Your task to perform on an android device: turn on notifications settings in the gmail app Image 0: 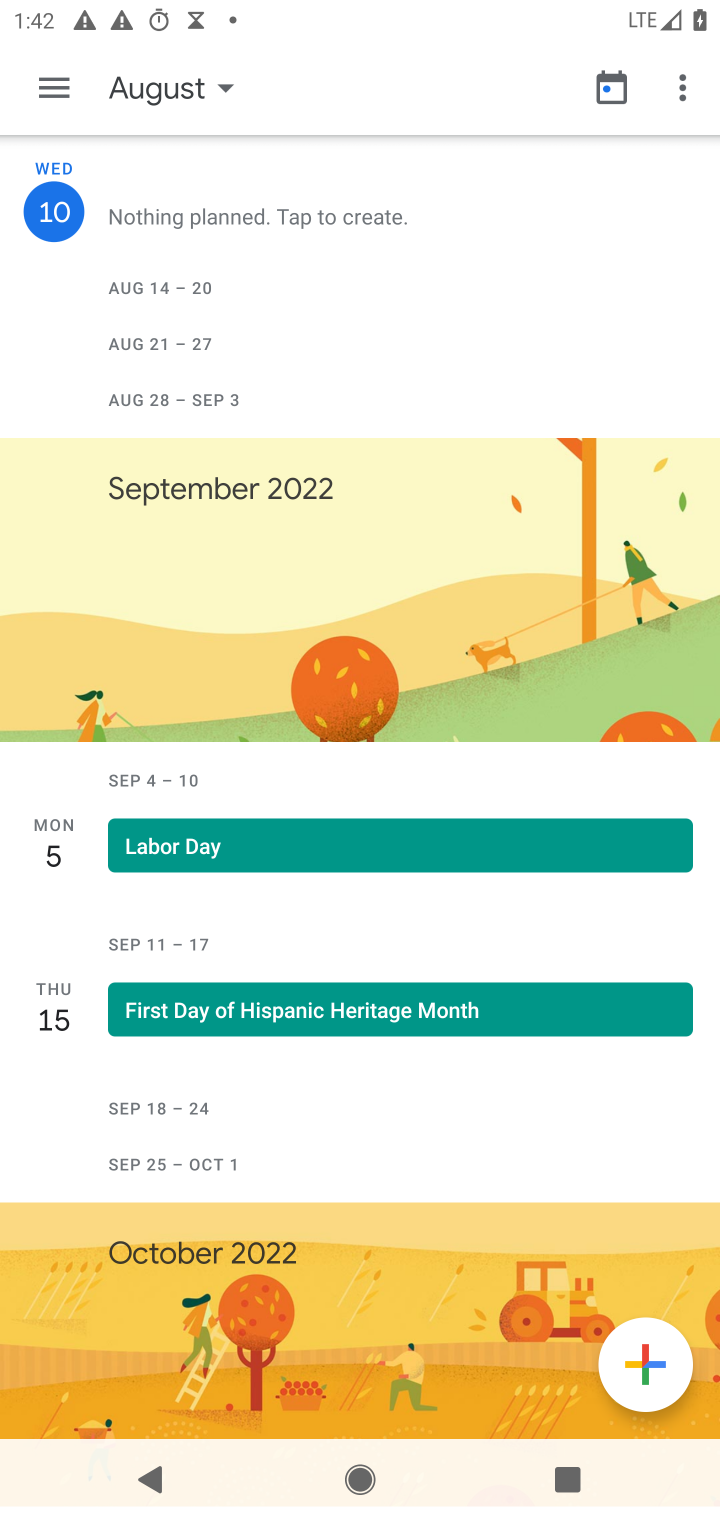
Step 0: press home button
Your task to perform on an android device: turn on notifications settings in the gmail app Image 1: 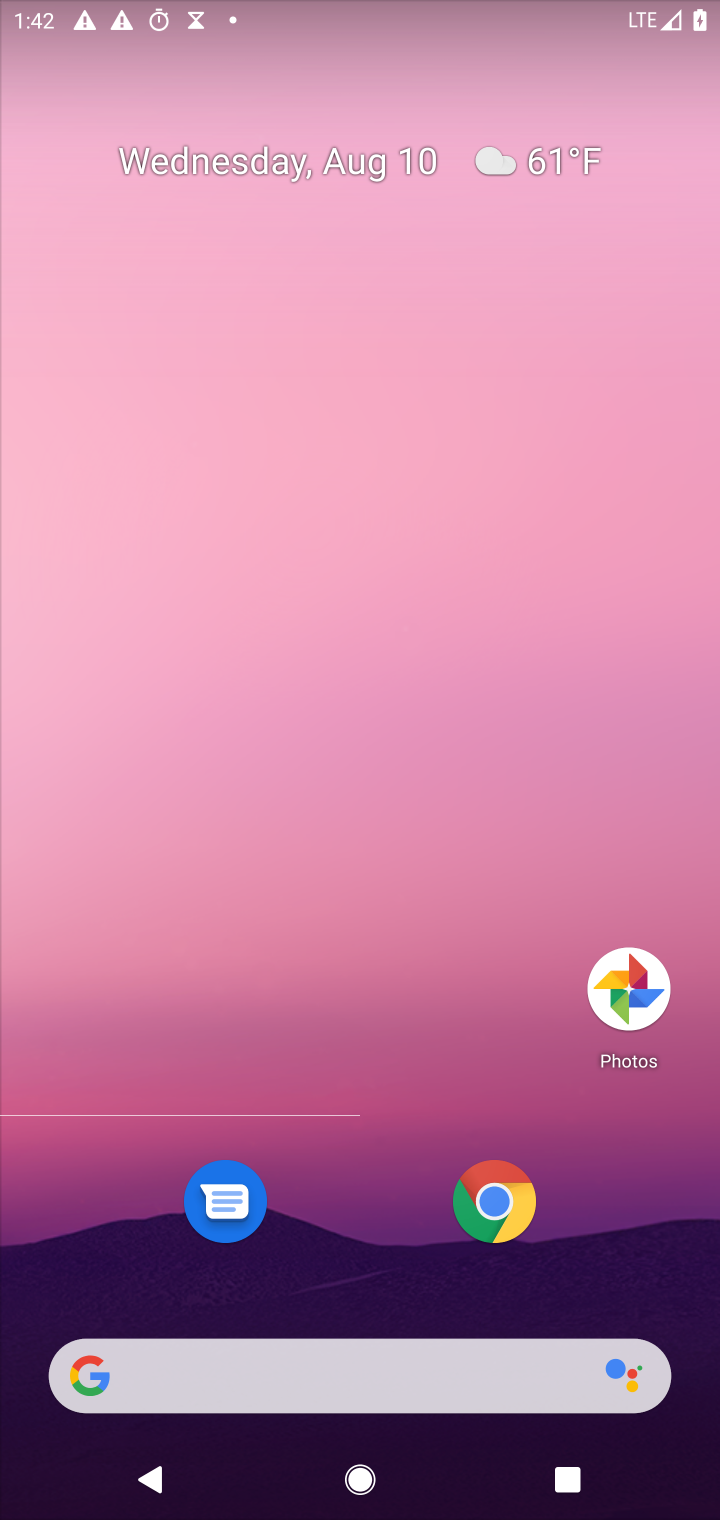
Step 1: drag from (407, 1295) to (461, 270)
Your task to perform on an android device: turn on notifications settings in the gmail app Image 2: 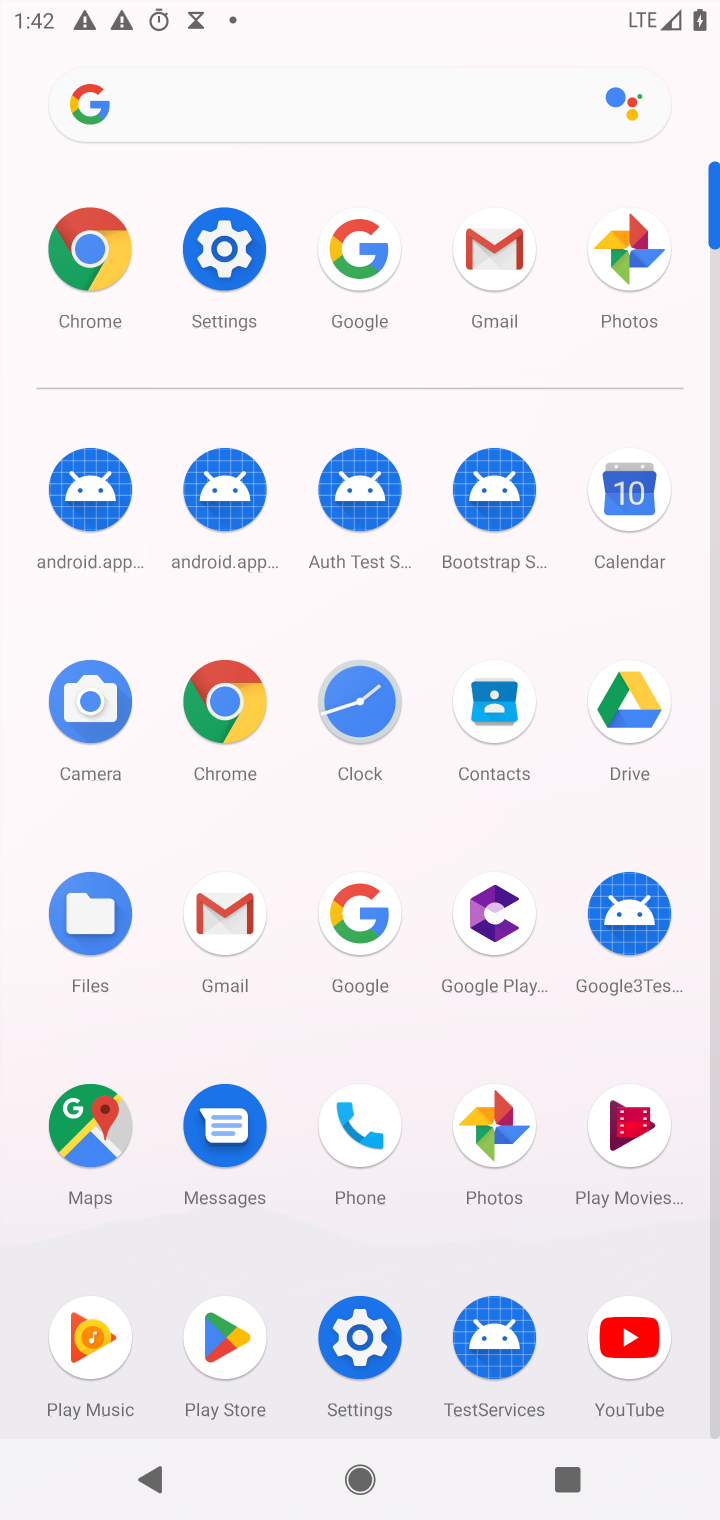
Step 2: click (489, 260)
Your task to perform on an android device: turn on notifications settings in the gmail app Image 3: 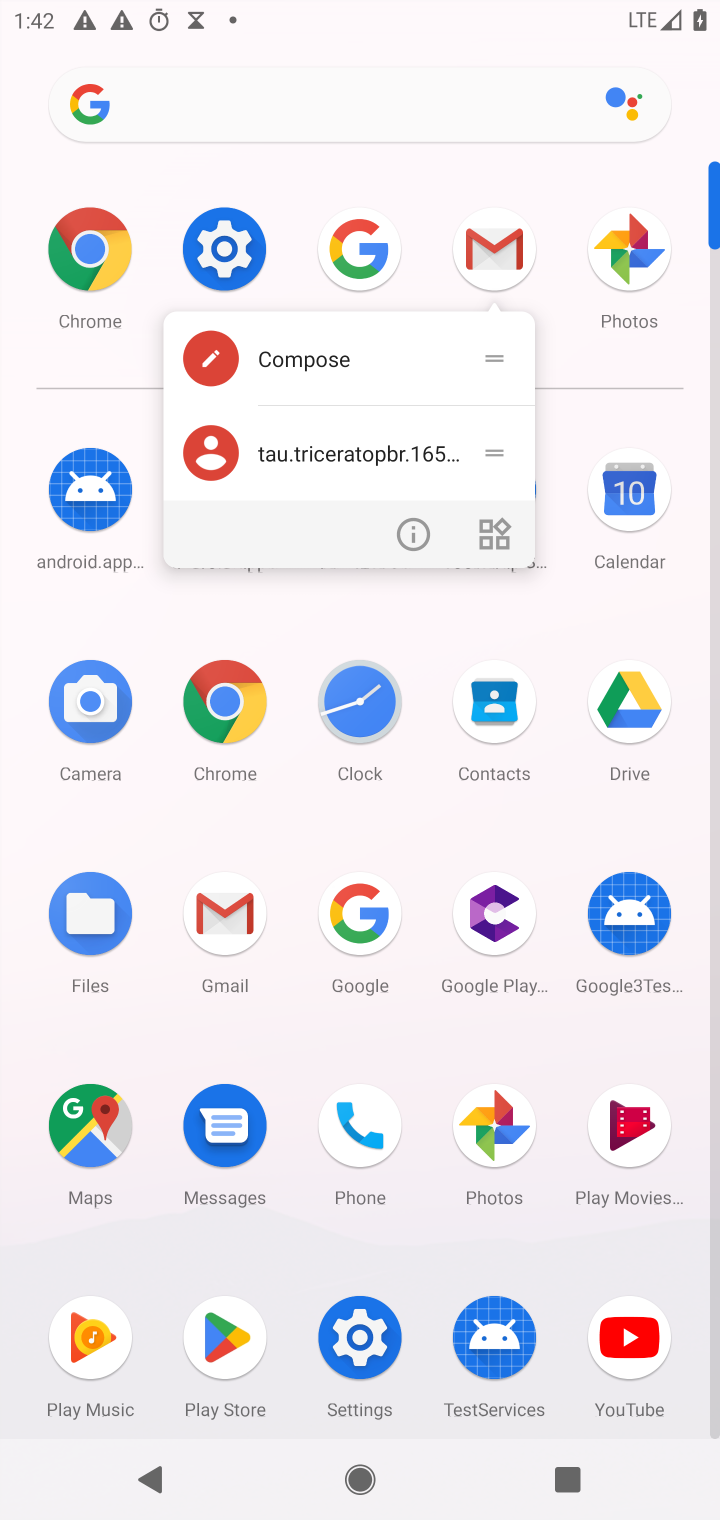
Step 3: click (489, 260)
Your task to perform on an android device: turn on notifications settings in the gmail app Image 4: 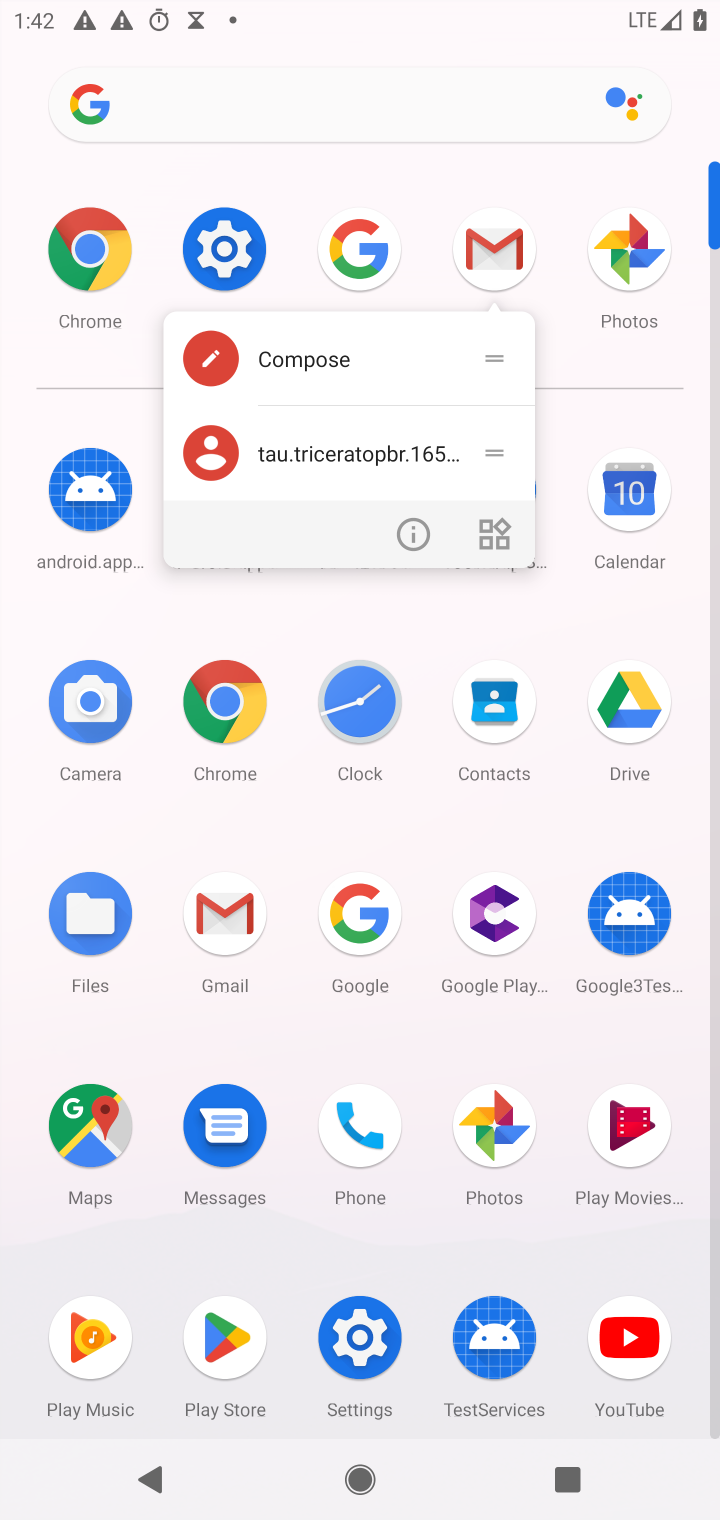
Step 4: click (489, 260)
Your task to perform on an android device: turn on notifications settings in the gmail app Image 5: 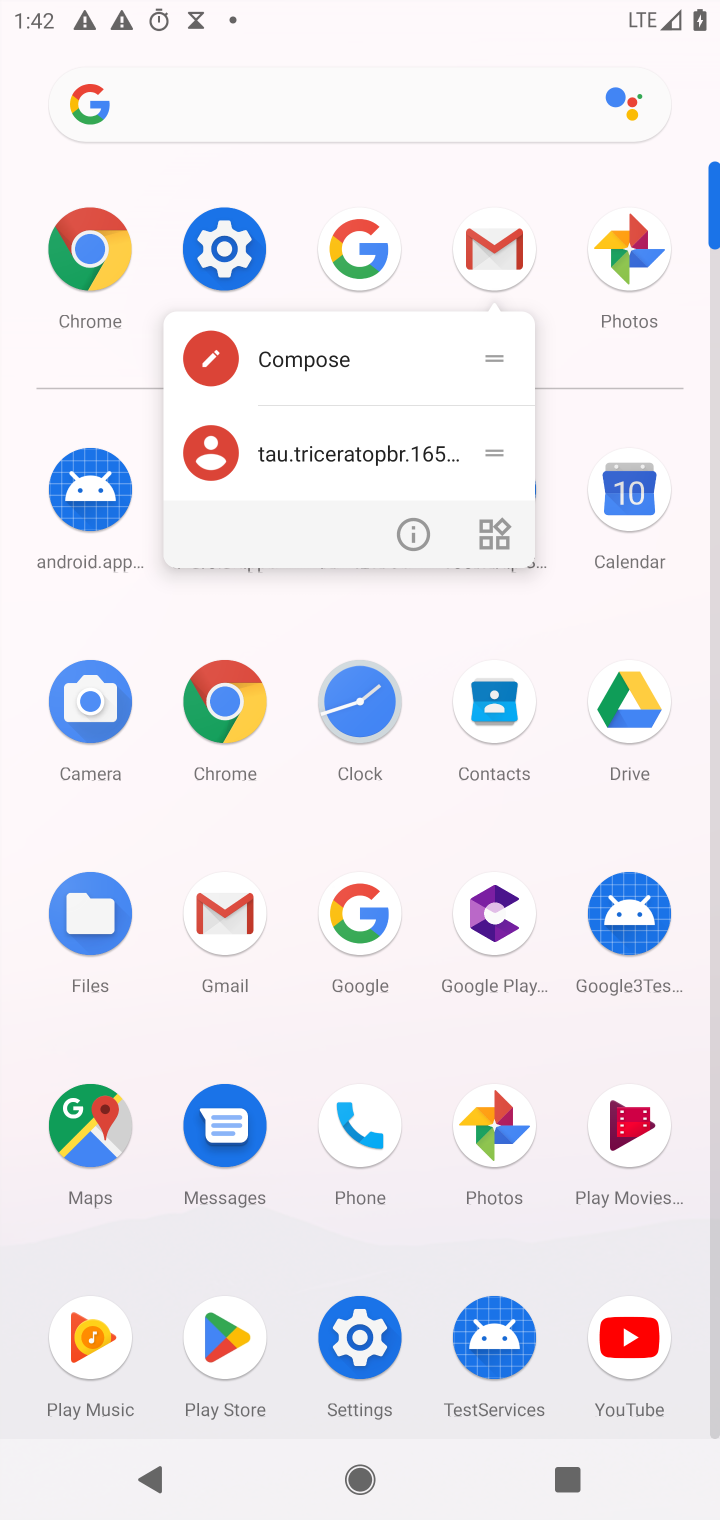
Step 5: click (489, 260)
Your task to perform on an android device: turn on notifications settings in the gmail app Image 6: 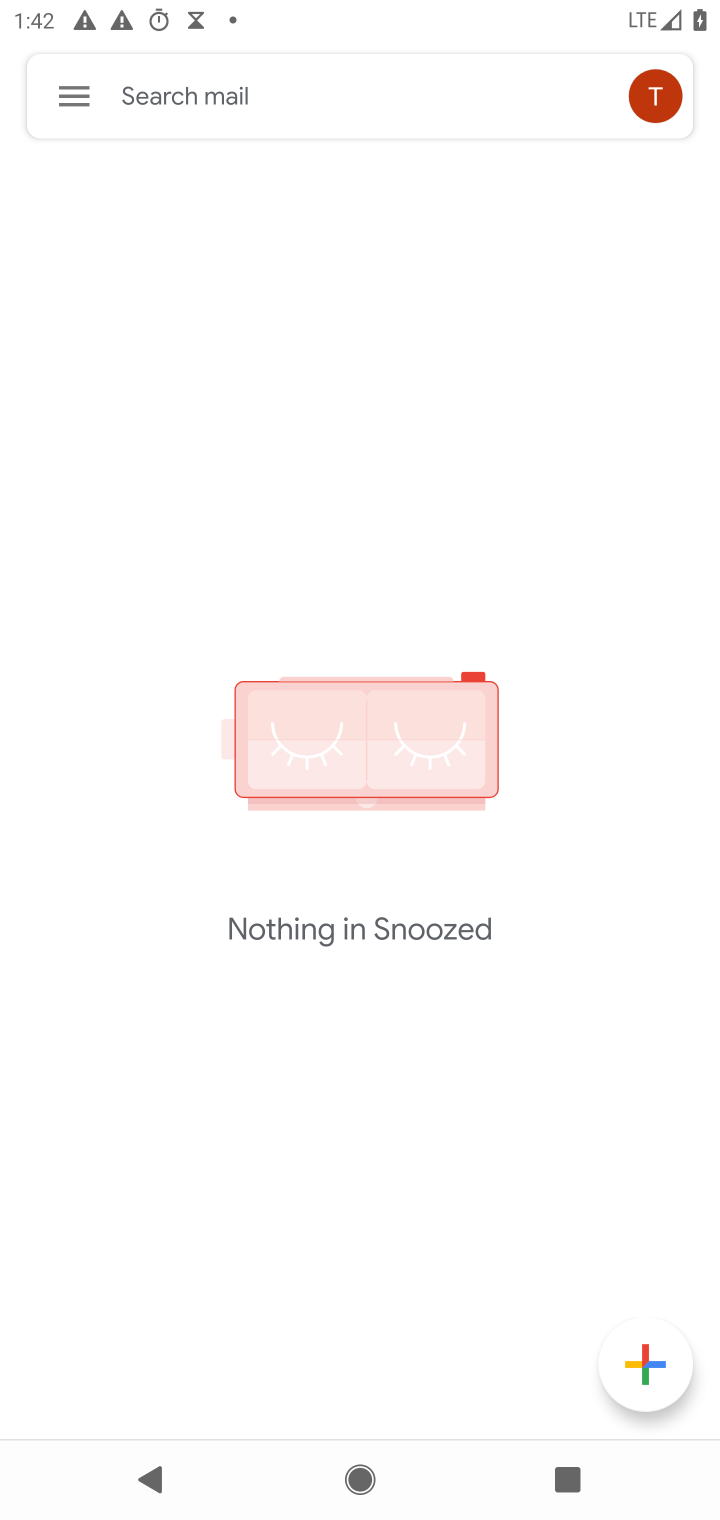
Step 6: click (80, 94)
Your task to perform on an android device: turn on notifications settings in the gmail app Image 7: 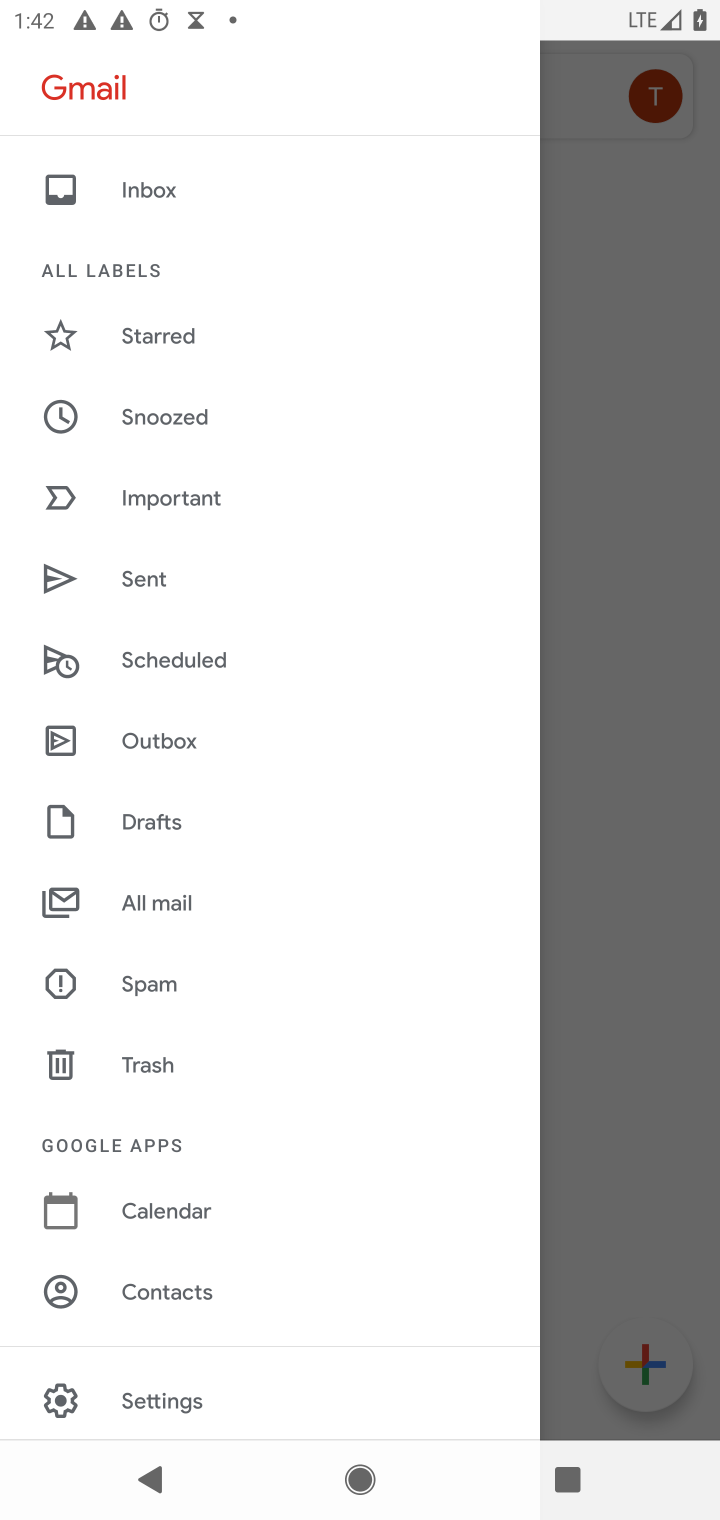
Step 7: click (169, 1389)
Your task to perform on an android device: turn on notifications settings in the gmail app Image 8: 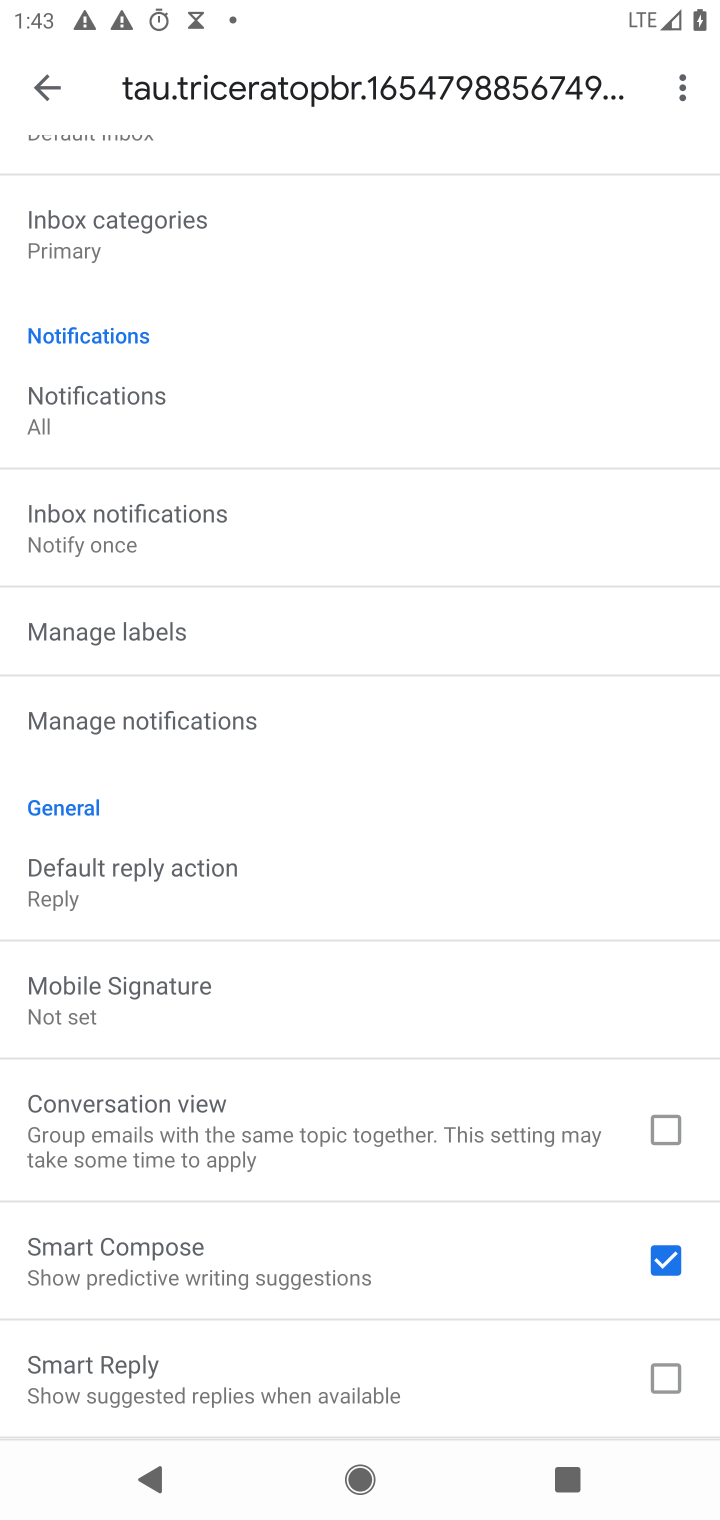
Step 8: click (121, 727)
Your task to perform on an android device: turn on notifications settings in the gmail app Image 9: 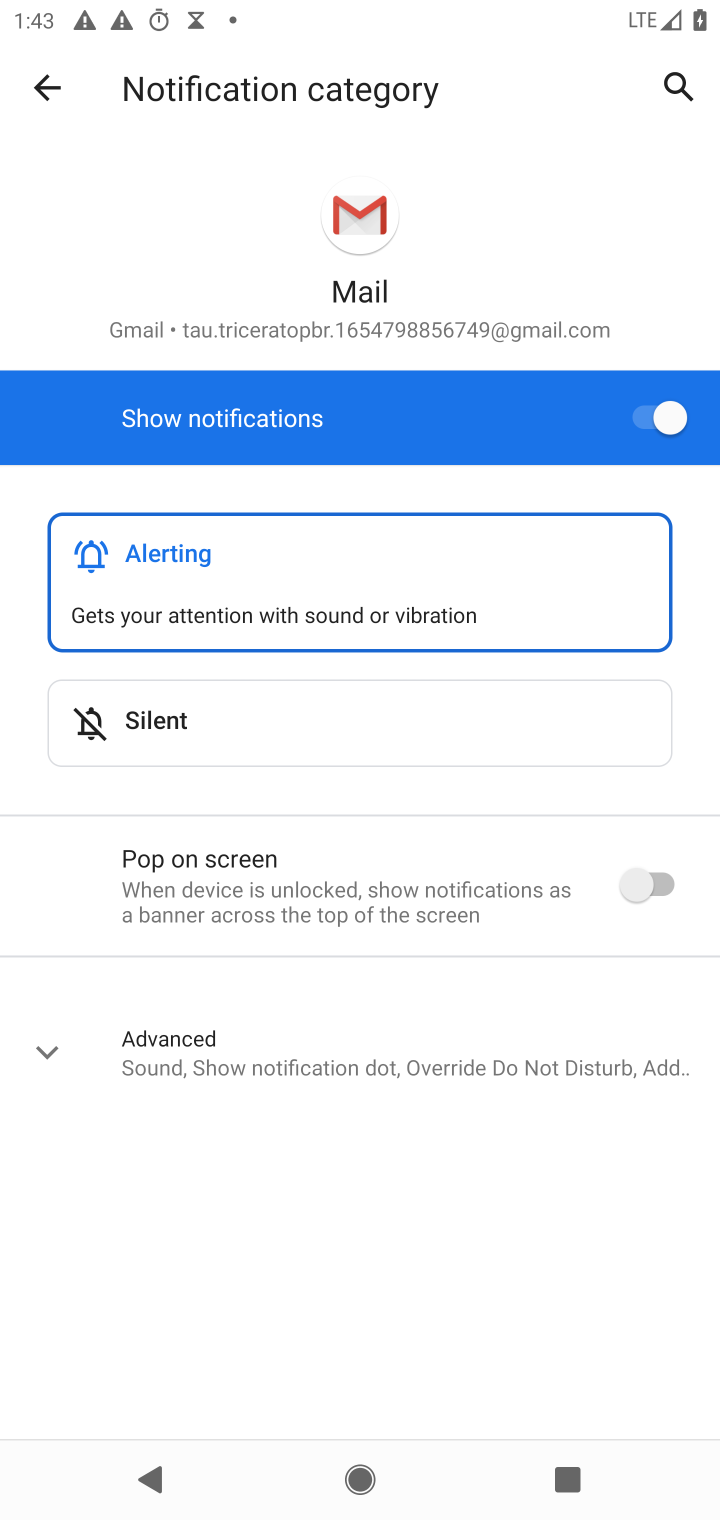
Step 9: task complete